Your task to perform on an android device: Open sound settings Image 0: 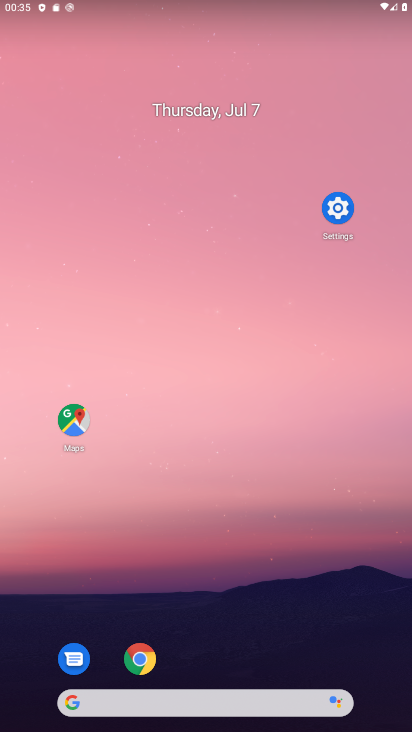
Step 0: drag from (241, 627) to (175, 213)
Your task to perform on an android device: Open sound settings Image 1: 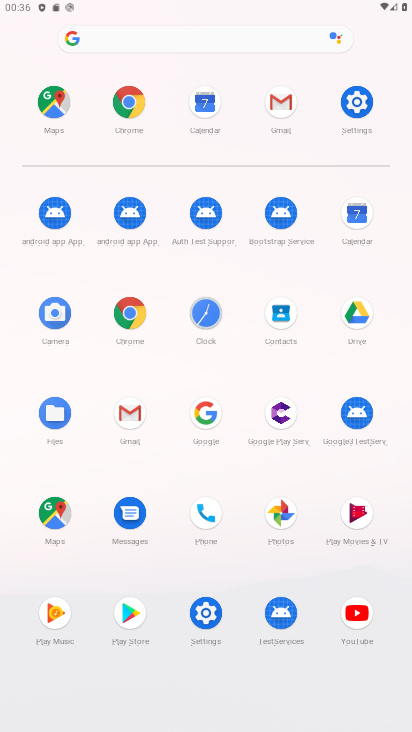
Step 1: click (366, 104)
Your task to perform on an android device: Open sound settings Image 2: 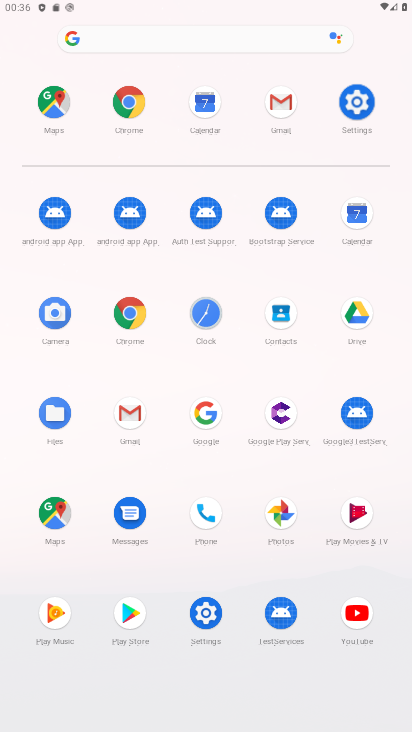
Step 2: click (360, 106)
Your task to perform on an android device: Open sound settings Image 3: 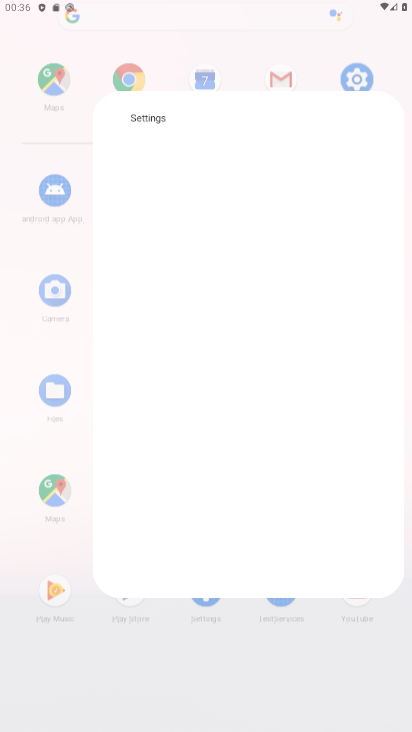
Step 3: click (360, 106)
Your task to perform on an android device: Open sound settings Image 4: 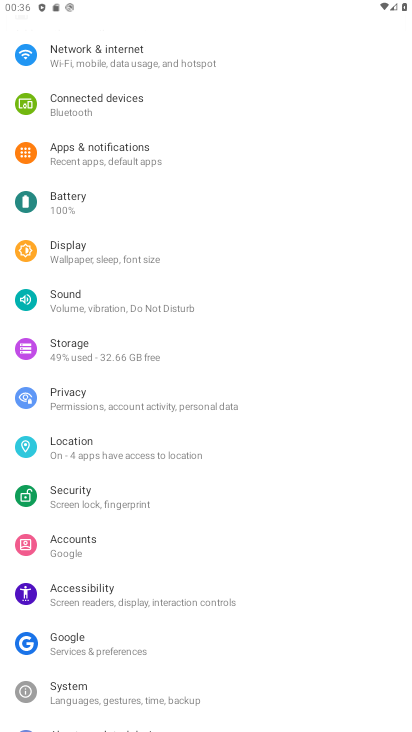
Step 4: click (359, 105)
Your task to perform on an android device: Open sound settings Image 5: 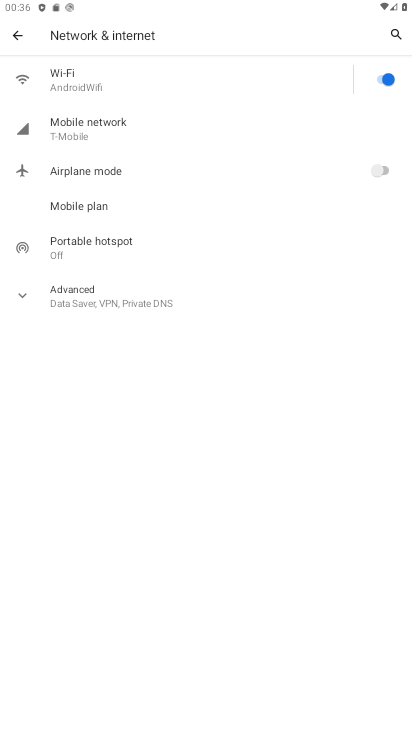
Step 5: click (22, 37)
Your task to perform on an android device: Open sound settings Image 6: 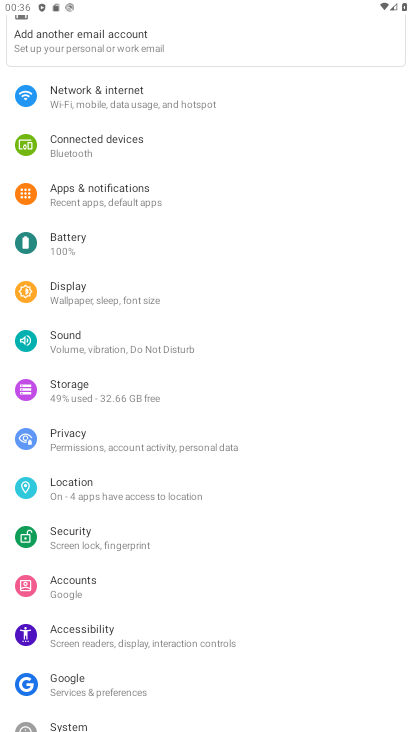
Step 6: click (60, 335)
Your task to perform on an android device: Open sound settings Image 7: 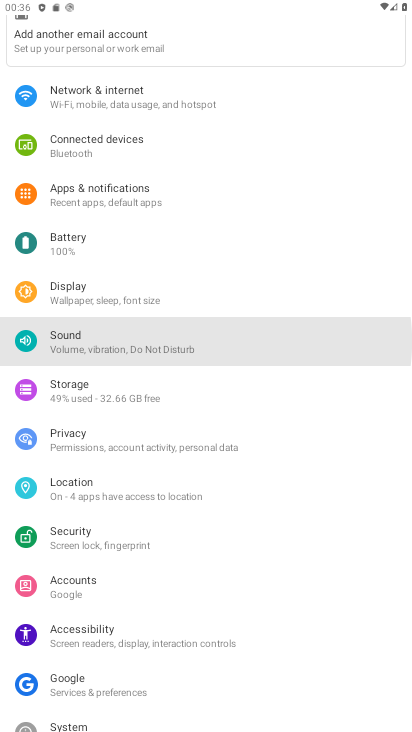
Step 7: click (58, 335)
Your task to perform on an android device: Open sound settings Image 8: 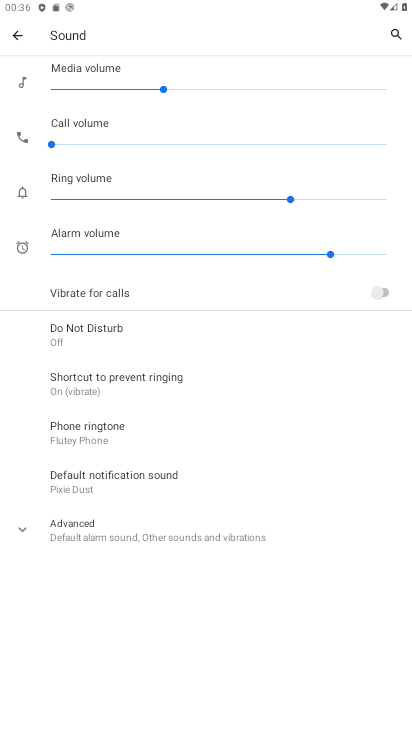
Step 8: click (99, 336)
Your task to perform on an android device: Open sound settings Image 9: 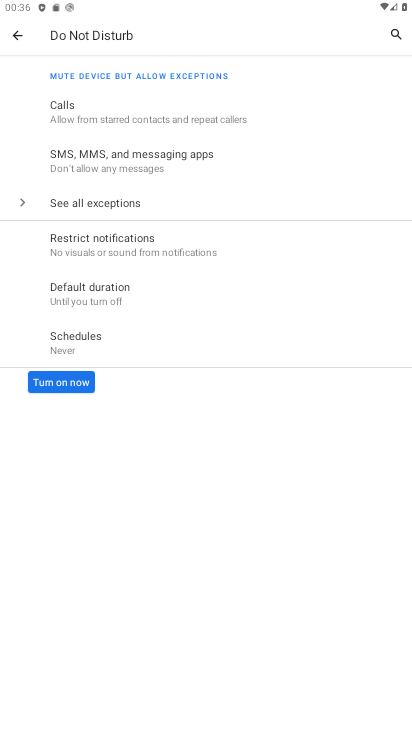
Step 9: click (16, 36)
Your task to perform on an android device: Open sound settings Image 10: 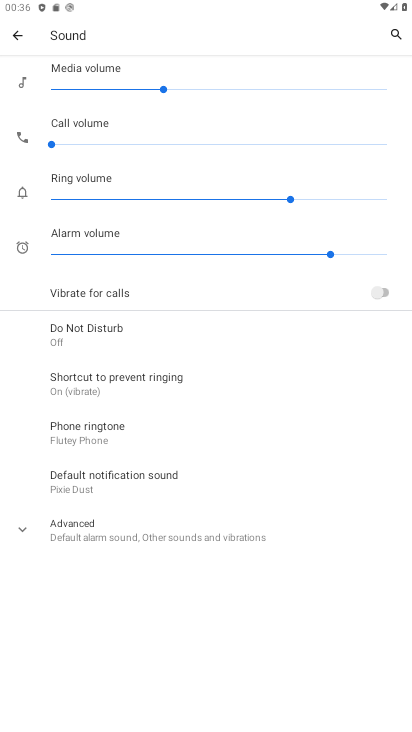
Step 10: task complete